Your task to perform on an android device: Open privacy settings Image 0: 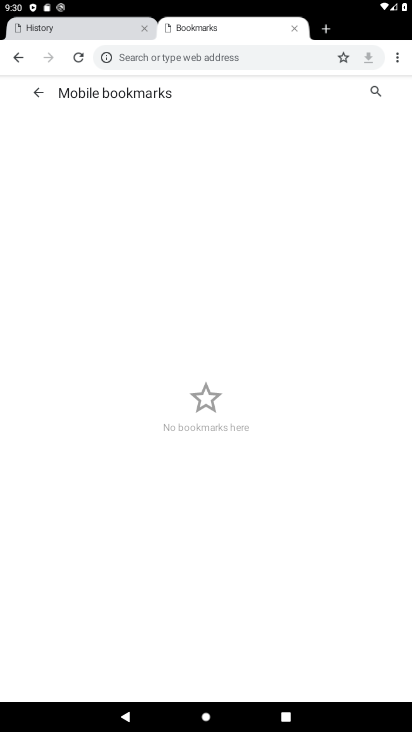
Step 0: drag from (399, 56) to (318, 259)
Your task to perform on an android device: Open privacy settings Image 1: 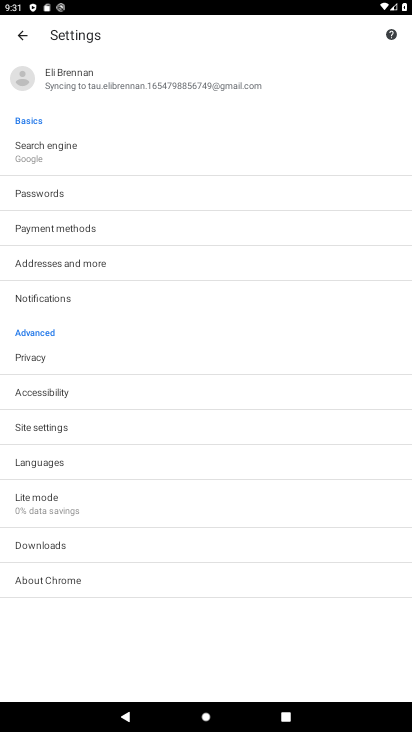
Step 1: click (66, 352)
Your task to perform on an android device: Open privacy settings Image 2: 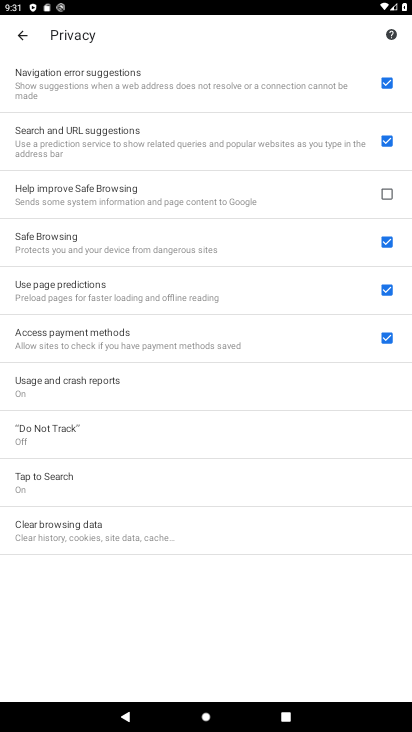
Step 2: task complete